Your task to perform on an android device: check android version Image 0: 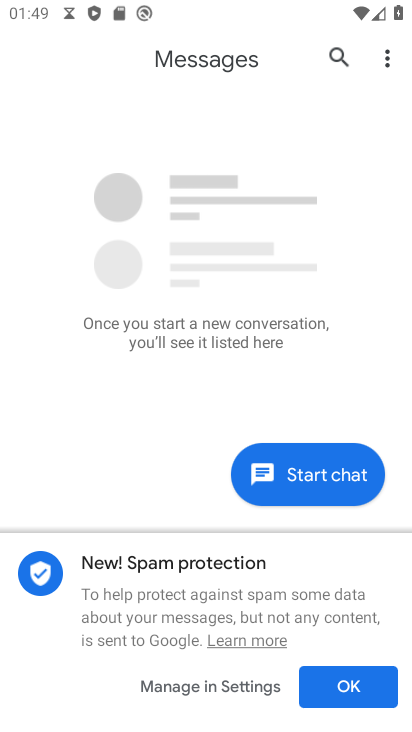
Step 0: press home button
Your task to perform on an android device: check android version Image 1: 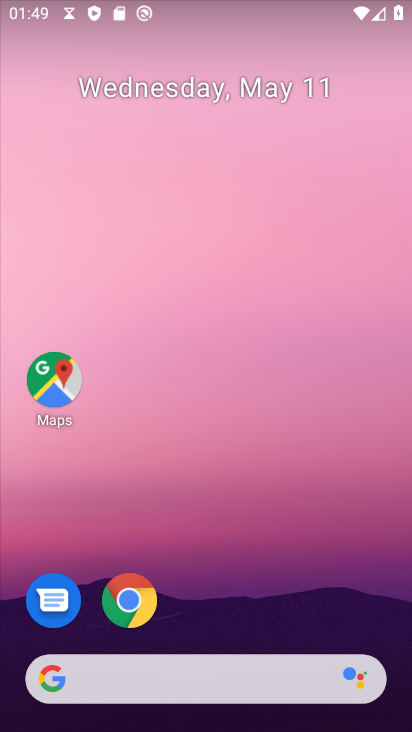
Step 1: drag from (217, 637) to (257, 200)
Your task to perform on an android device: check android version Image 2: 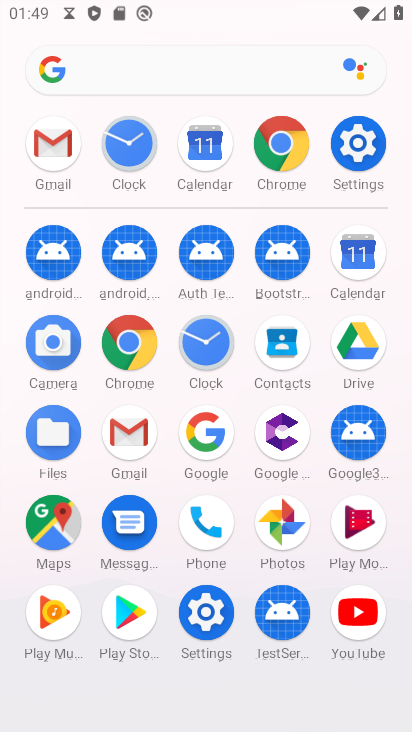
Step 2: click (348, 131)
Your task to perform on an android device: check android version Image 3: 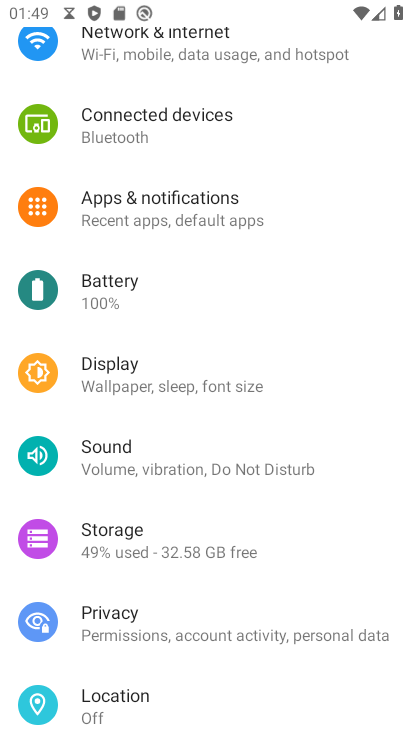
Step 3: drag from (120, 625) to (147, 296)
Your task to perform on an android device: check android version Image 4: 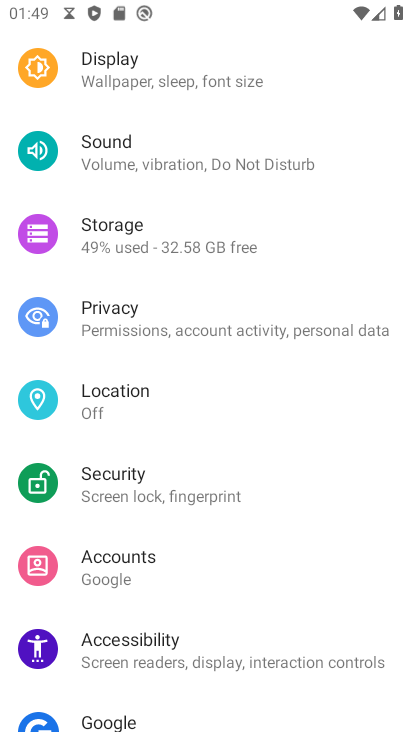
Step 4: drag from (171, 657) to (241, 105)
Your task to perform on an android device: check android version Image 5: 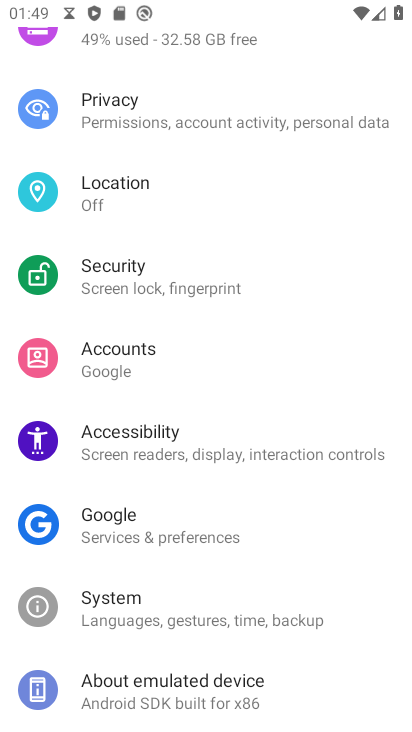
Step 5: click (146, 686)
Your task to perform on an android device: check android version Image 6: 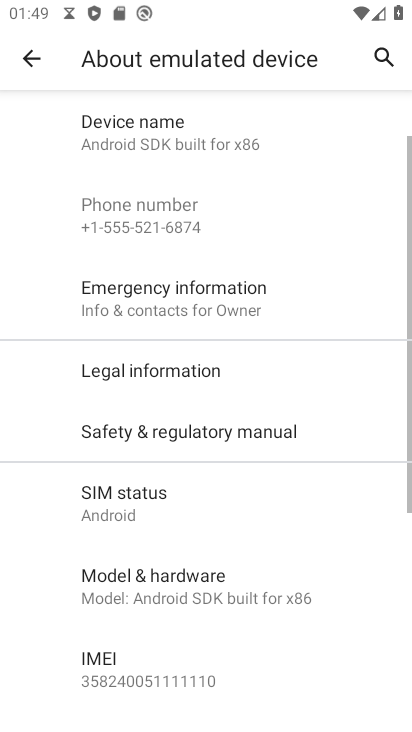
Step 6: drag from (163, 579) to (258, 173)
Your task to perform on an android device: check android version Image 7: 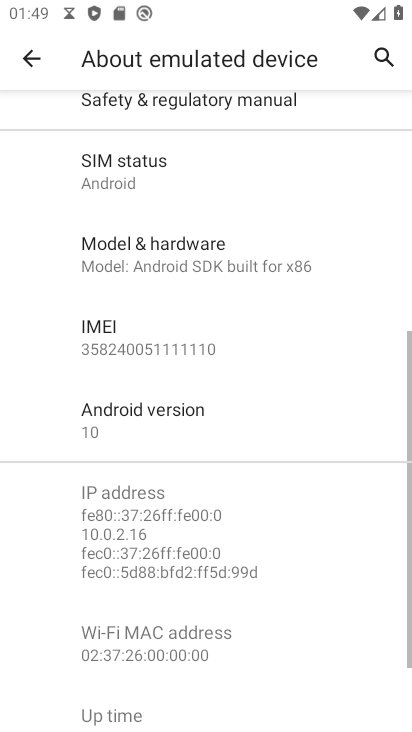
Step 7: click (139, 420)
Your task to perform on an android device: check android version Image 8: 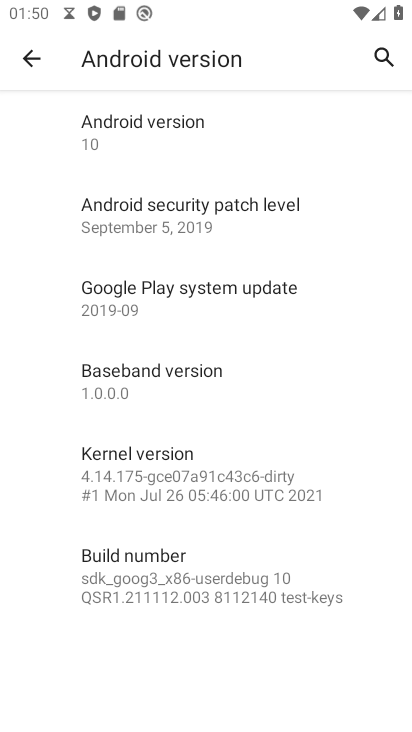
Step 8: task complete